Your task to perform on an android device: Toggle the flashlight Image 0: 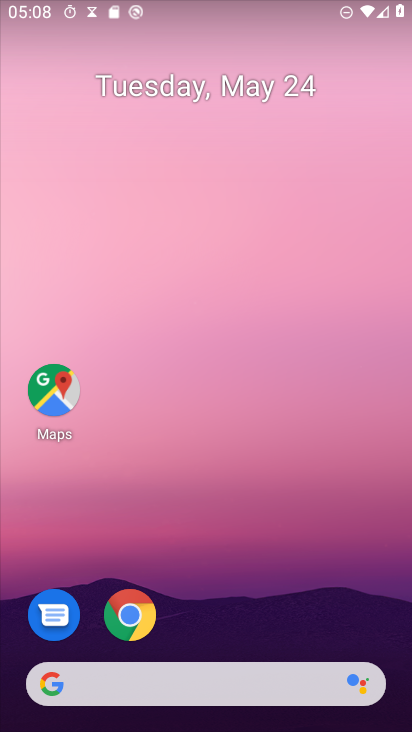
Step 0: drag from (185, 576) to (273, 103)
Your task to perform on an android device: Toggle the flashlight Image 1: 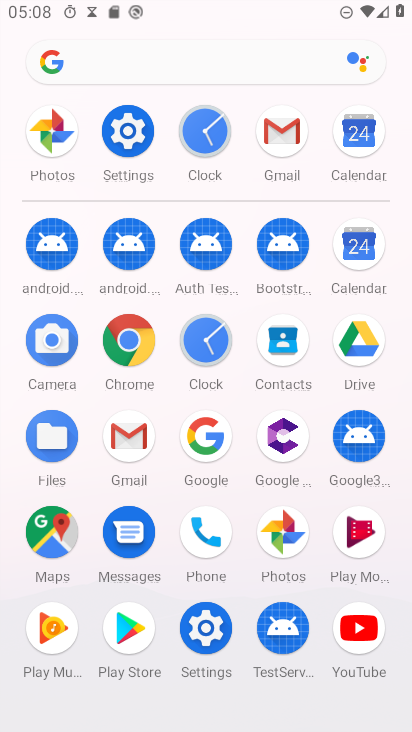
Step 1: click (123, 128)
Your task to perform on an android device: Toggle the flashlight Image 2: 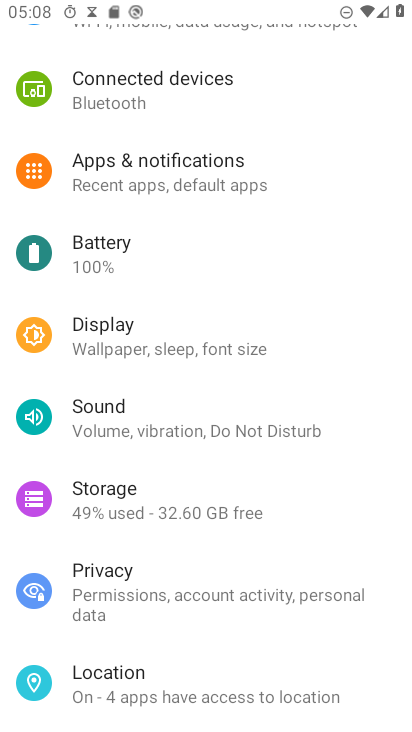
Step 2: drag from (166, 163) to (180, 704)
Your task to perform on an android device: Toggle the flashlight Image 3: 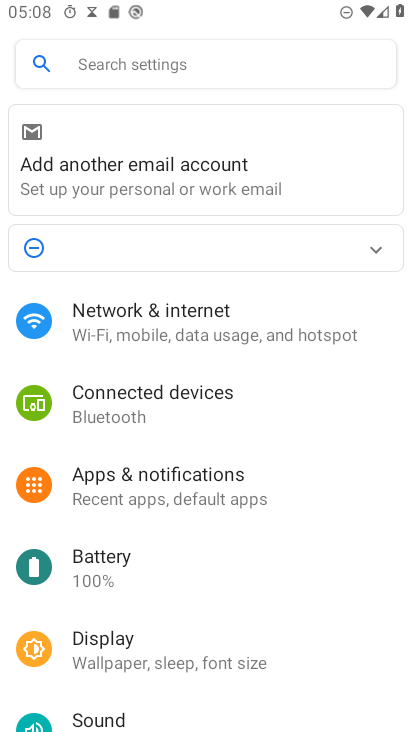
Step 3: click (106, 65)
Your task to perform on an android device: Toggle the flashlight Image 4: 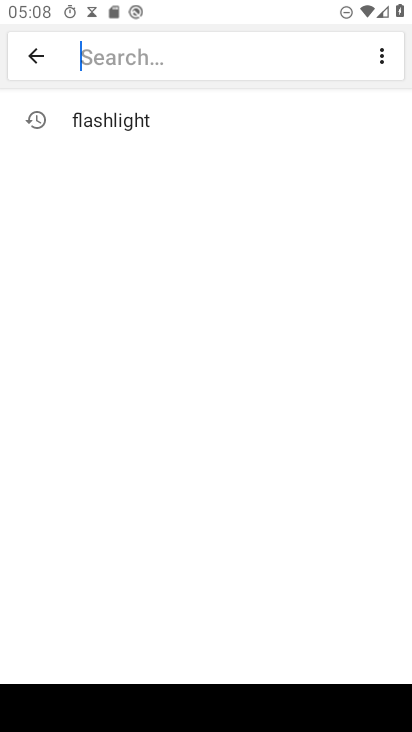
Step 4: click (108, 119)
Your task to perform on an android device: Toggle the flashlight Image 5: 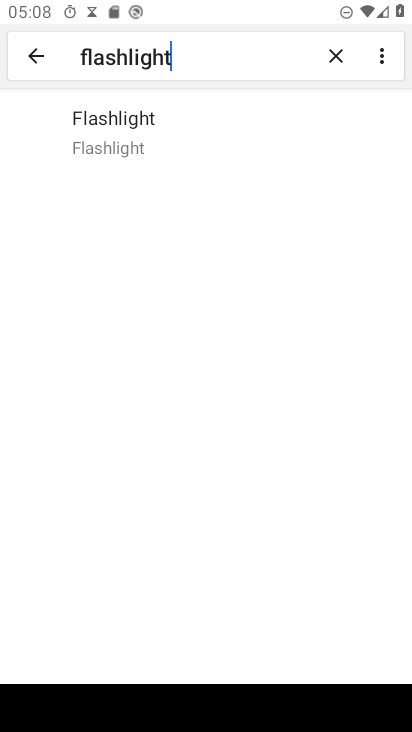
Step 5: click (148, 116)
Your task to perform on an android device: Toggle the flashlight Image 6: 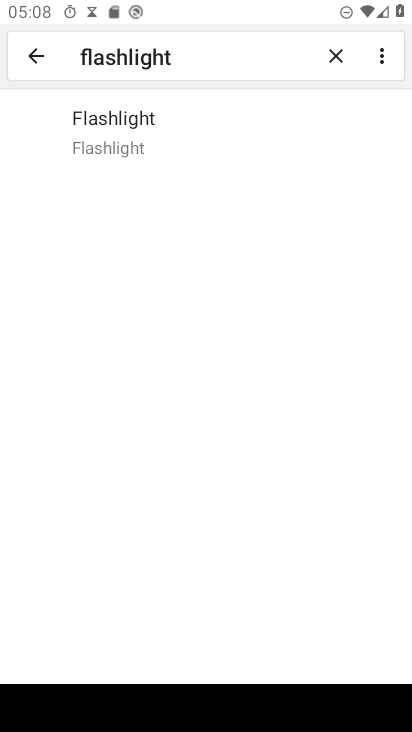
Step 6: click (140, 120)
Your task to perform on an android device: Toggle the flashlight Image 7: 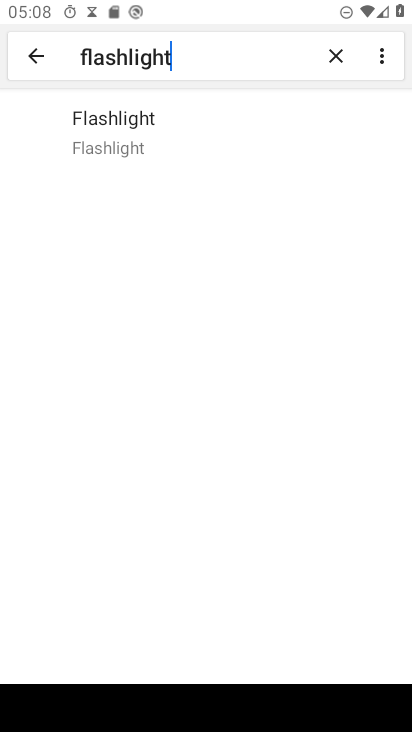
Step 7: click (136, 119)
Your task to perform on an android device: Toggle the flashlight Image 8: 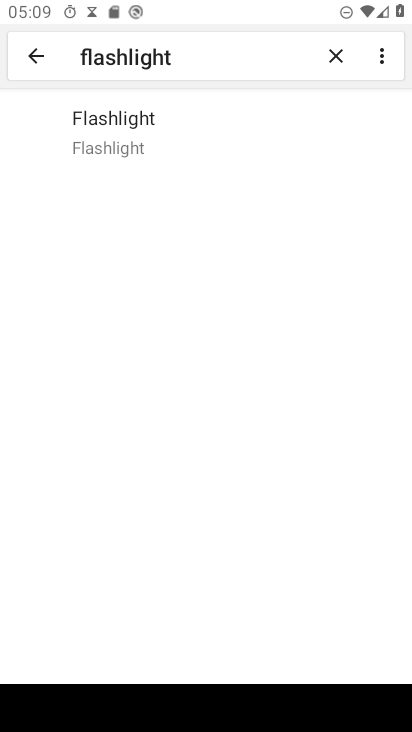
Step 8: task complete